Your task to perform on an android device: Go to accessibility settings Image 0: 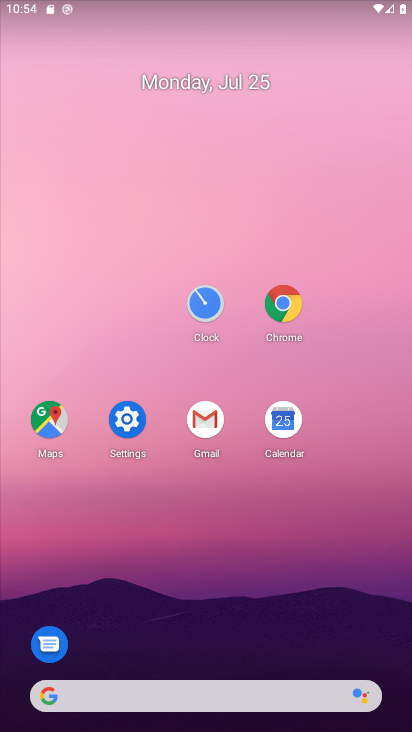
Step 0: click (126, 417)
Your task to perform on an android device: Go to accessibility settings Image 1: 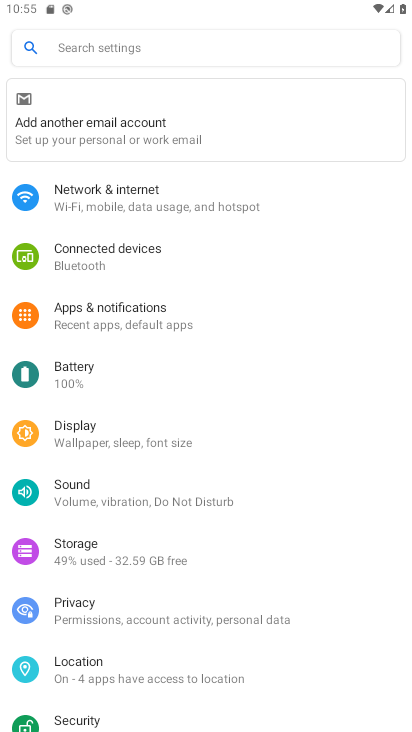
Step 1: drag from (297, 679) to (288, 172)
Your task to perform on an android device: Go to accessibility settings Image 2: 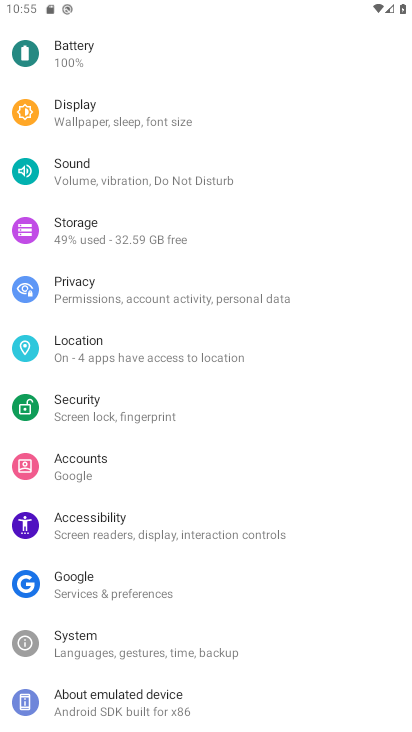
Step 2: click (92, 531)
Your task to perform on an android device: Go to accessibility settings Image 3: 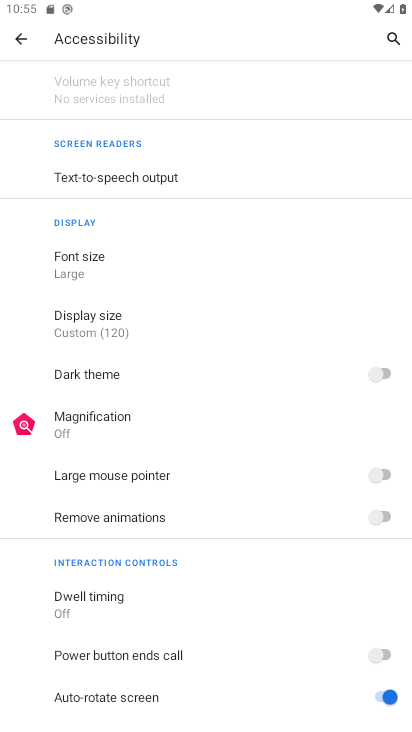
Step 3: task complete